Your task to perform on an android device: Go to Maps Image 0: 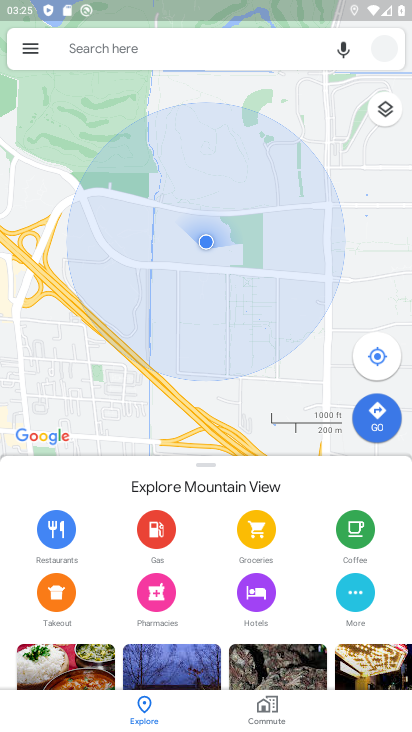
Step 0: press home button
Your task to perform on an android device: Go to Maps Image 1: 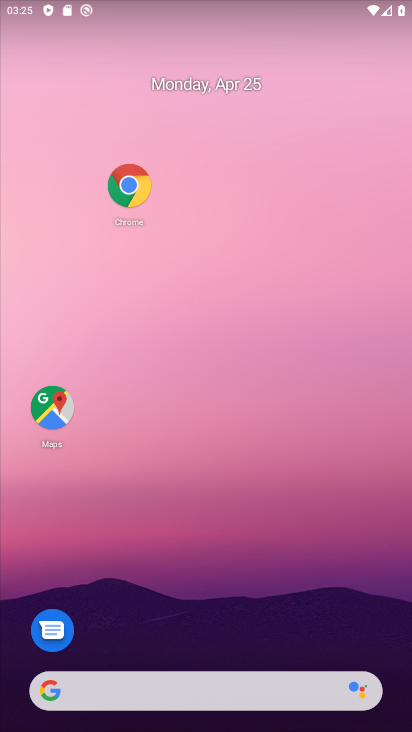
Step 1: click (53, 413)
Your task to perform on an android device: Go to Maps Image 2: 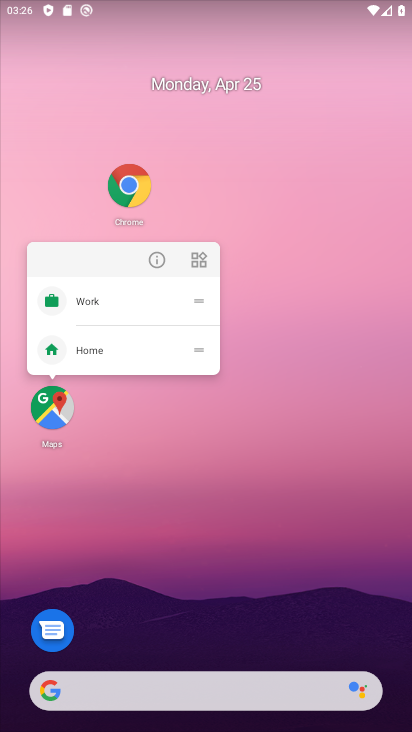
Step 2: click (157, 258)
Your task to perform on an android device: Go to Maps Image 3: 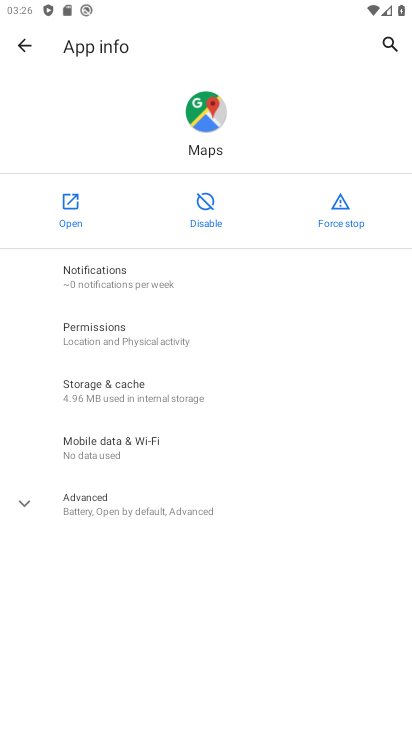
Step 3: click (67, 213)
Your task to perform on an android device: Go to Maps Image 4: 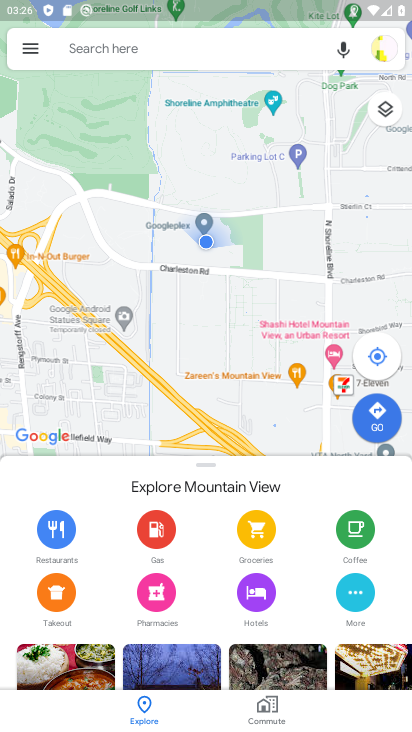
Step 4: task complete